Your task to perform on an android device: check battery use Image 0: 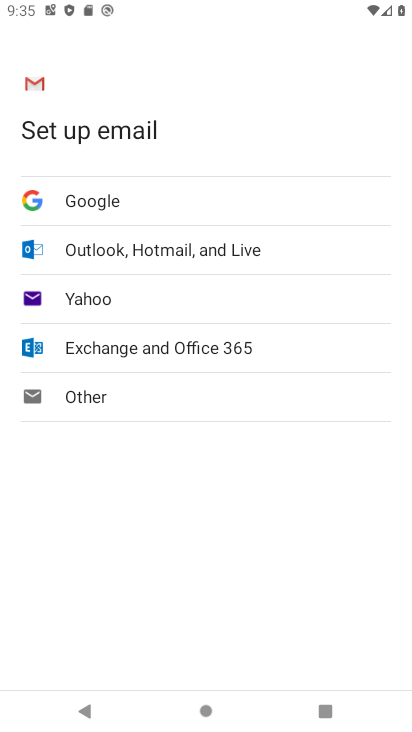
Step 0: press home button
Your task to perform on an android device: check battery use Image 1: 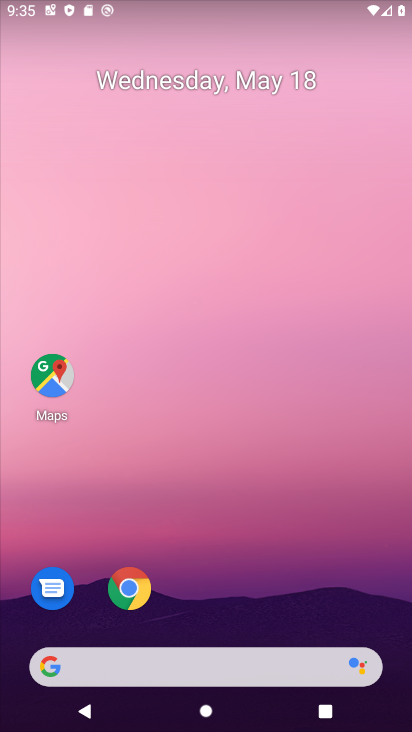
Step 1: drag from (268, 667) to (259, 160)
Your task to perform on an android device: check battery use Image 2: 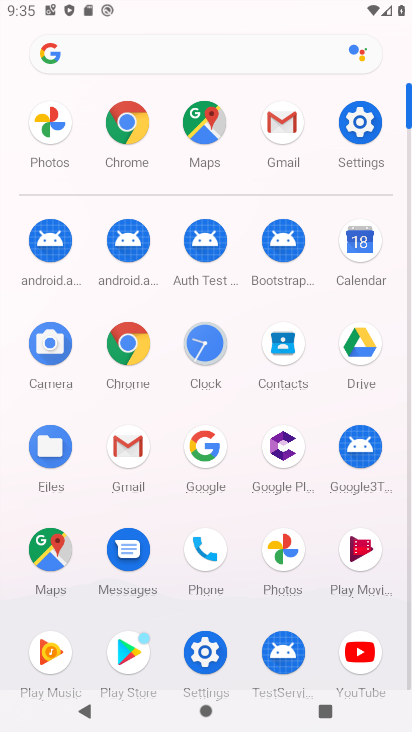
Step 2: click (355, 124)
Your task to perform on an android device: check battery use Image 3: 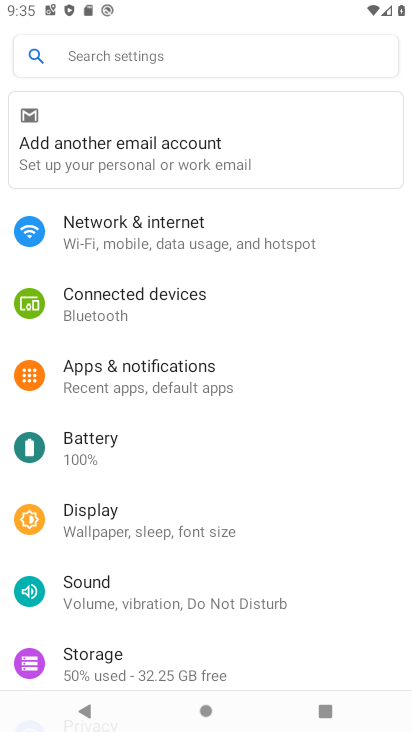
Step 3: click (126, 460)
Your task to perform on an android device: check battery use Image 4: 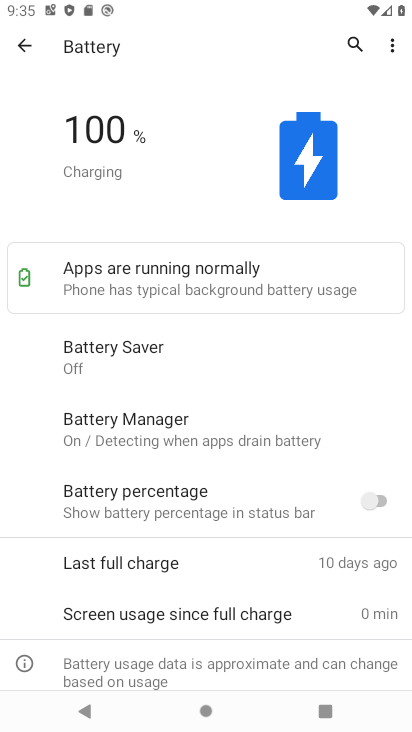
Step 4: task complete